Your task to perform on an android device: open app "eBay: The shopping marketplace" Image 0: 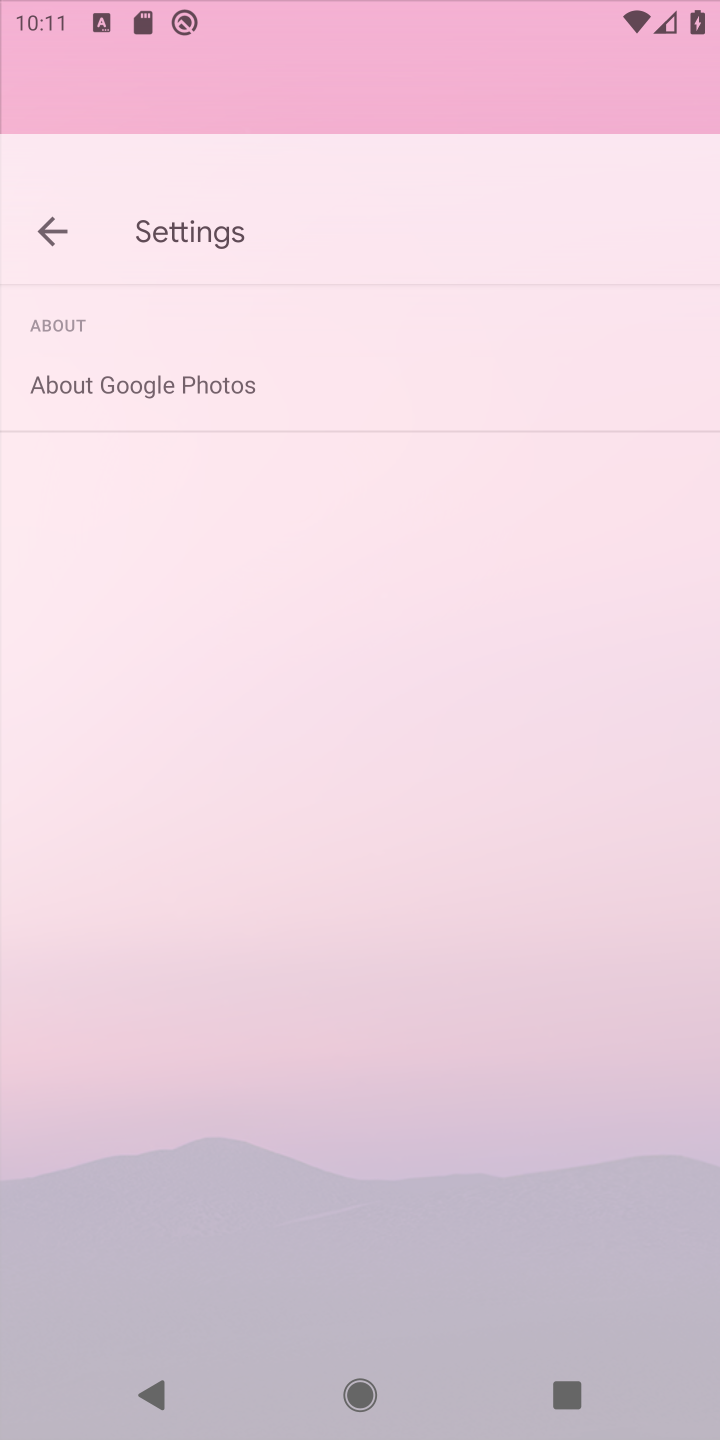
Step 0: click (46, 98)
Your task to perform on an android device: open app "eBay: The shopping marketplace" Image 1: 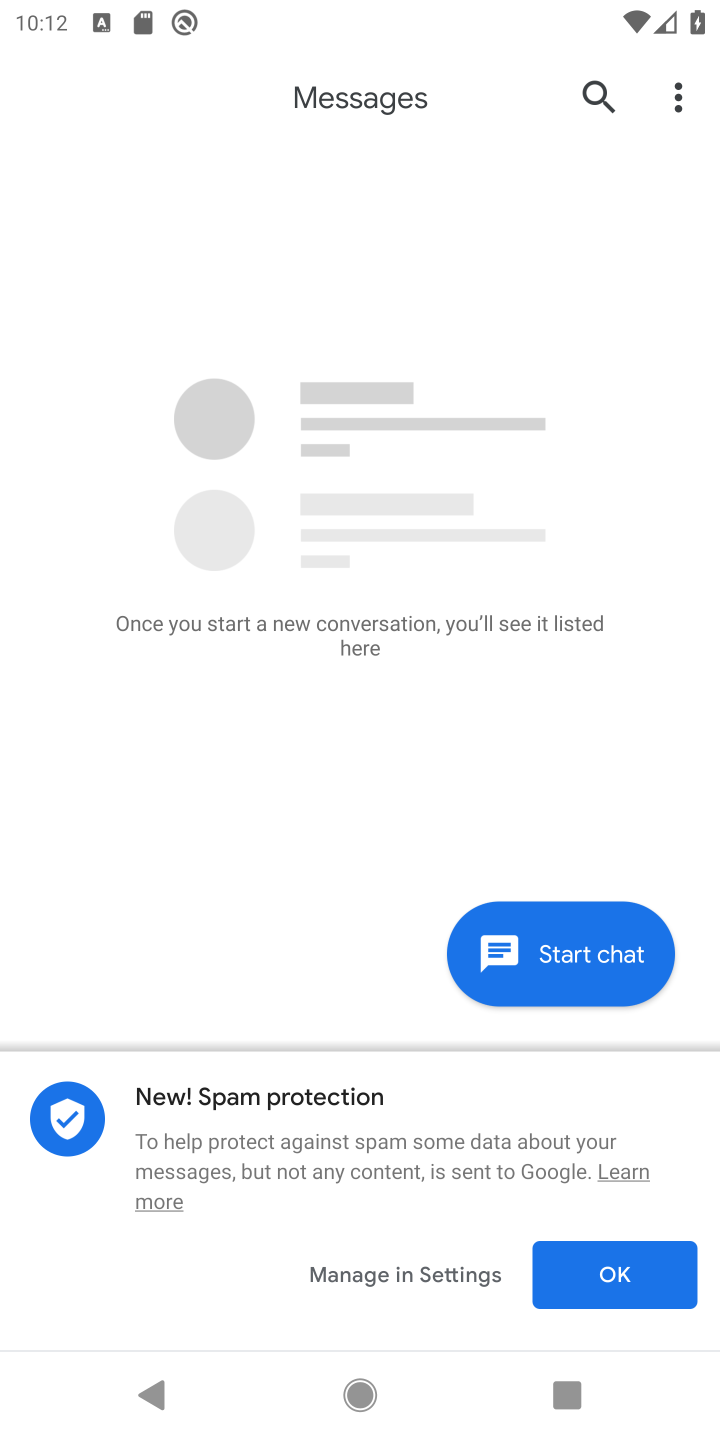
Step 1: press back button
Your task to perform on an android device: open app "eBay: The shopping marketplace" Image 2: 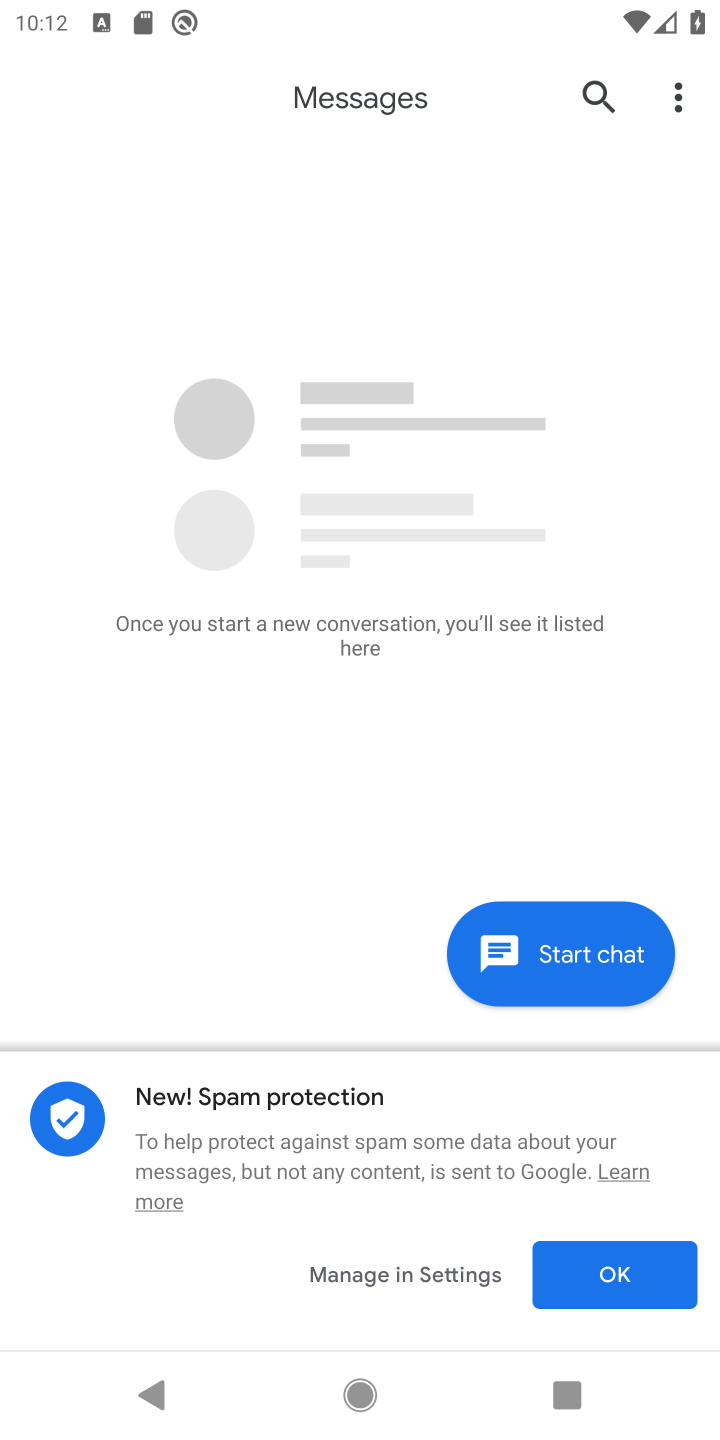
Step 2: press back button
Your task to perform on an android device: open app "eBay: The shopping marketplace" Image 3: 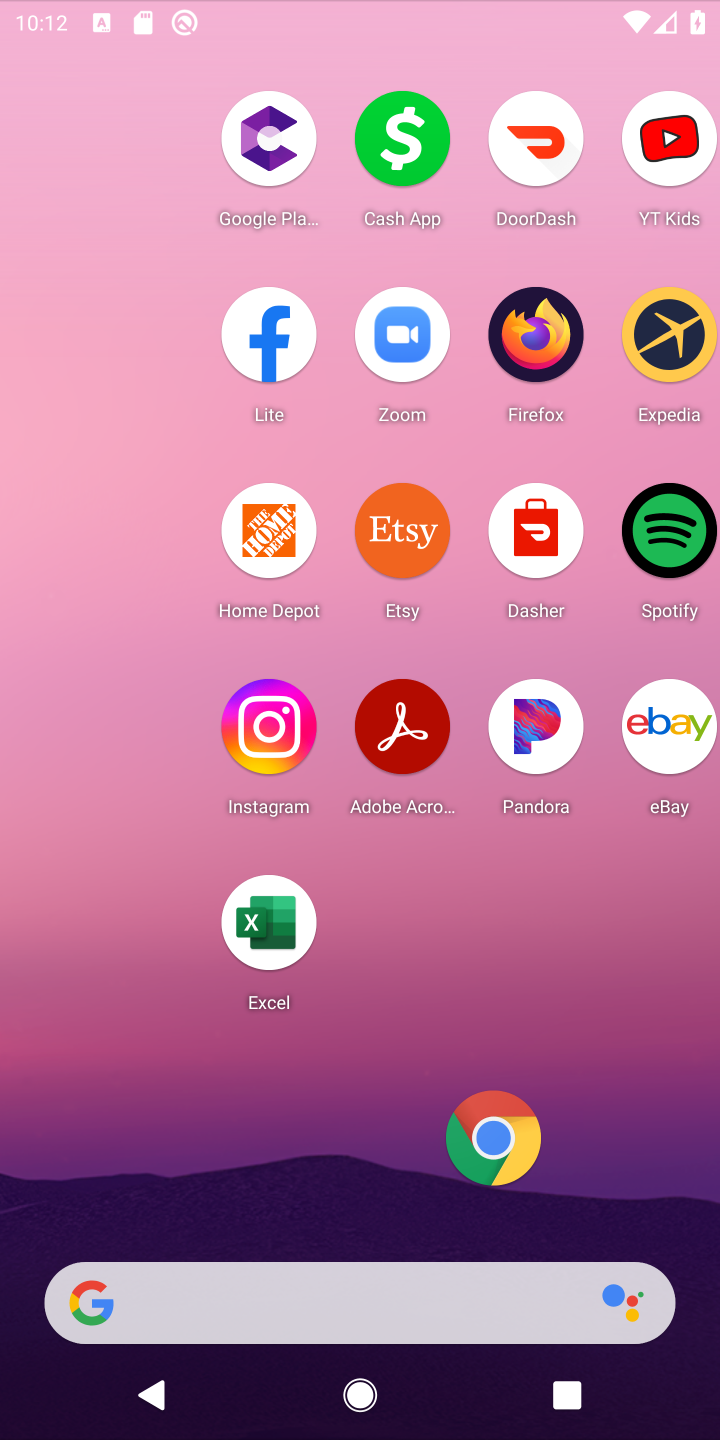
Step 3: press home button
Your task to perform on an android device: open app "eBay: The shopping marketplace" Image 4: 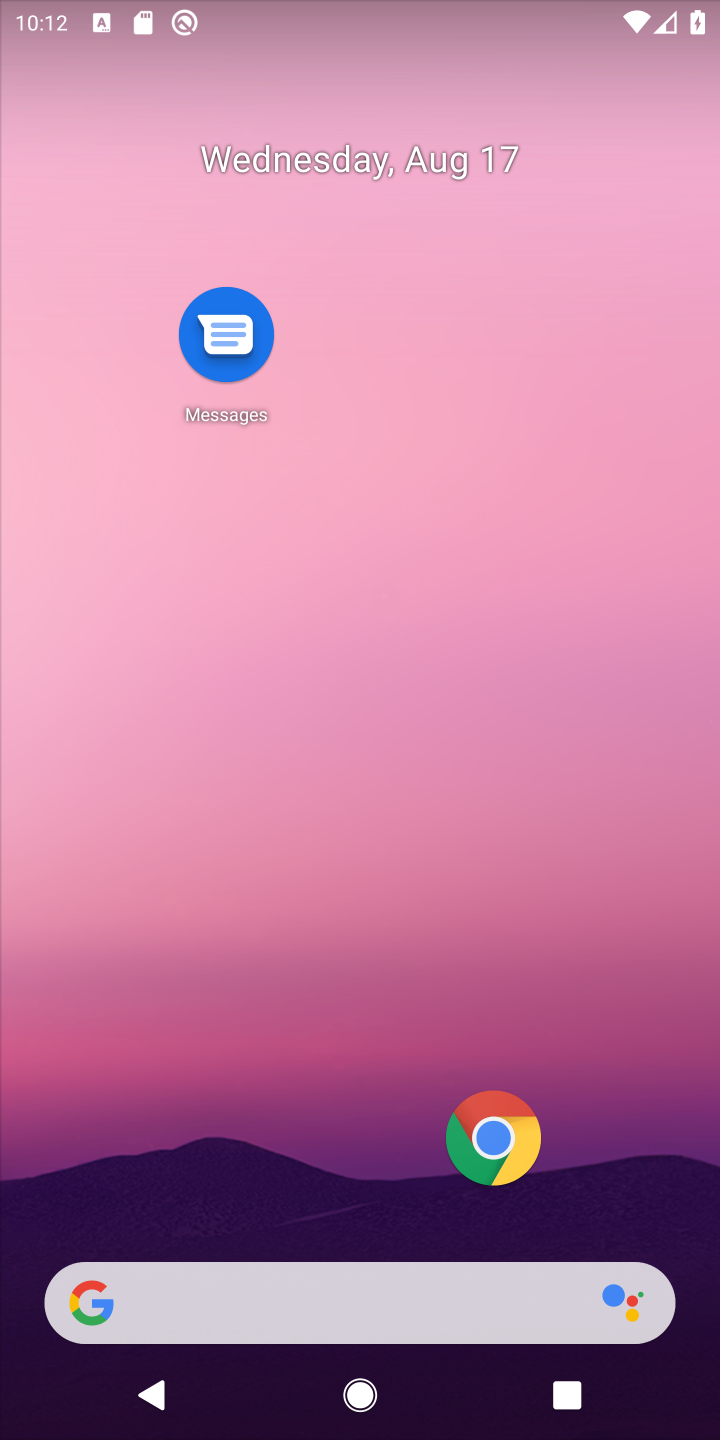
Step 4: drag from (322, 1303) to (274, 143)
Your task to perform on an android device: open app "eBay: The shopping marketplace" Image 5: 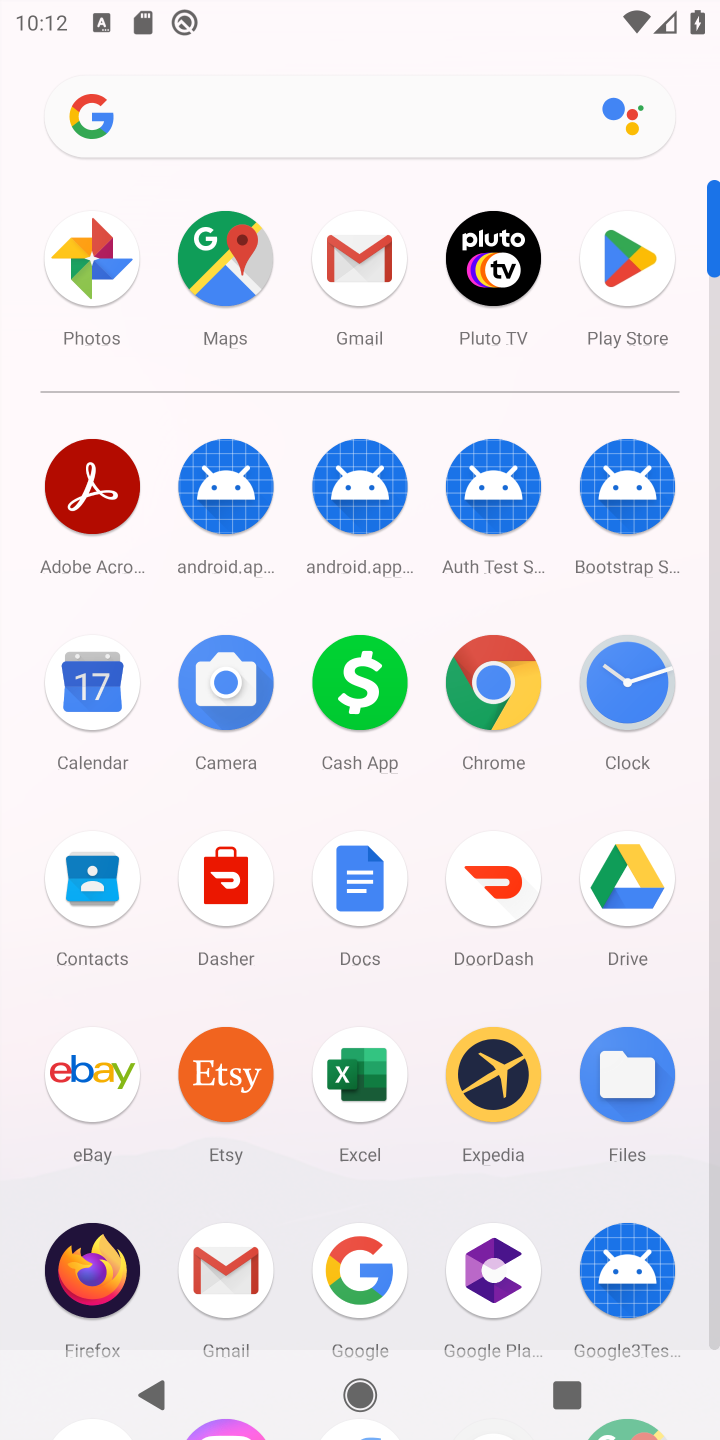
Step 5: click (629, 269)
Your task to perform on an android device: open app "eBay: The shopping marketplace" Image 6: 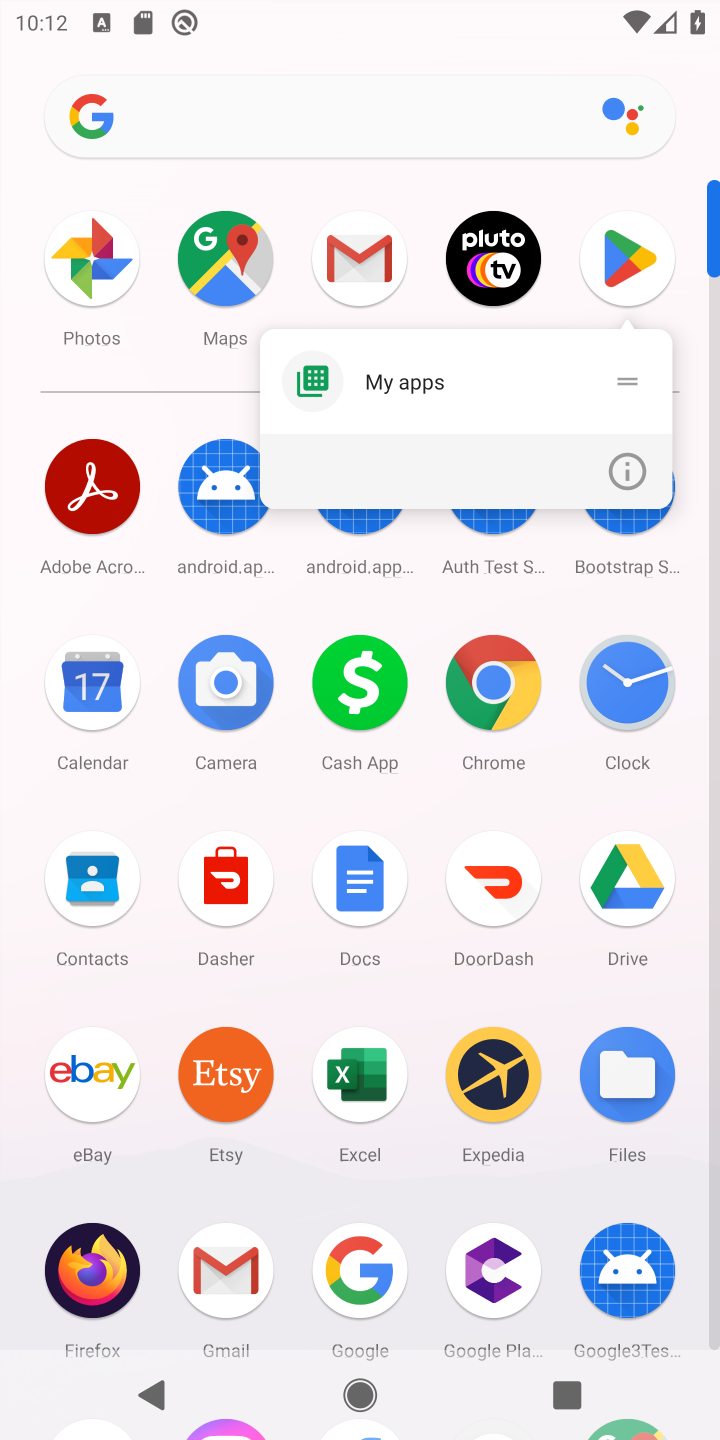
Step 6: click (622, 290)
Your task to perform on an android device: open app "eBay: The shopping marketplace" Image 7: 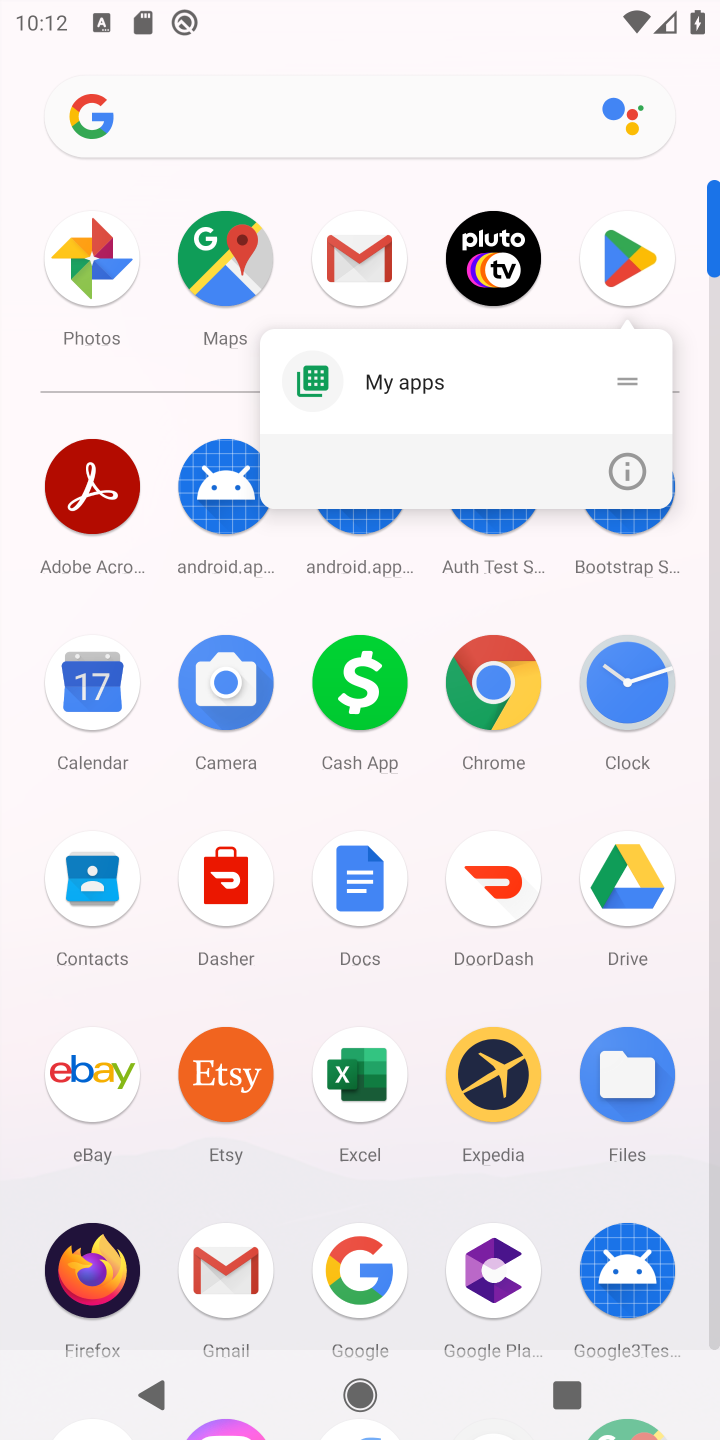
Step 7: click (622, 290)
Your task to perform on an android device: open app "eBay: The shopping marketplace" Image 8: 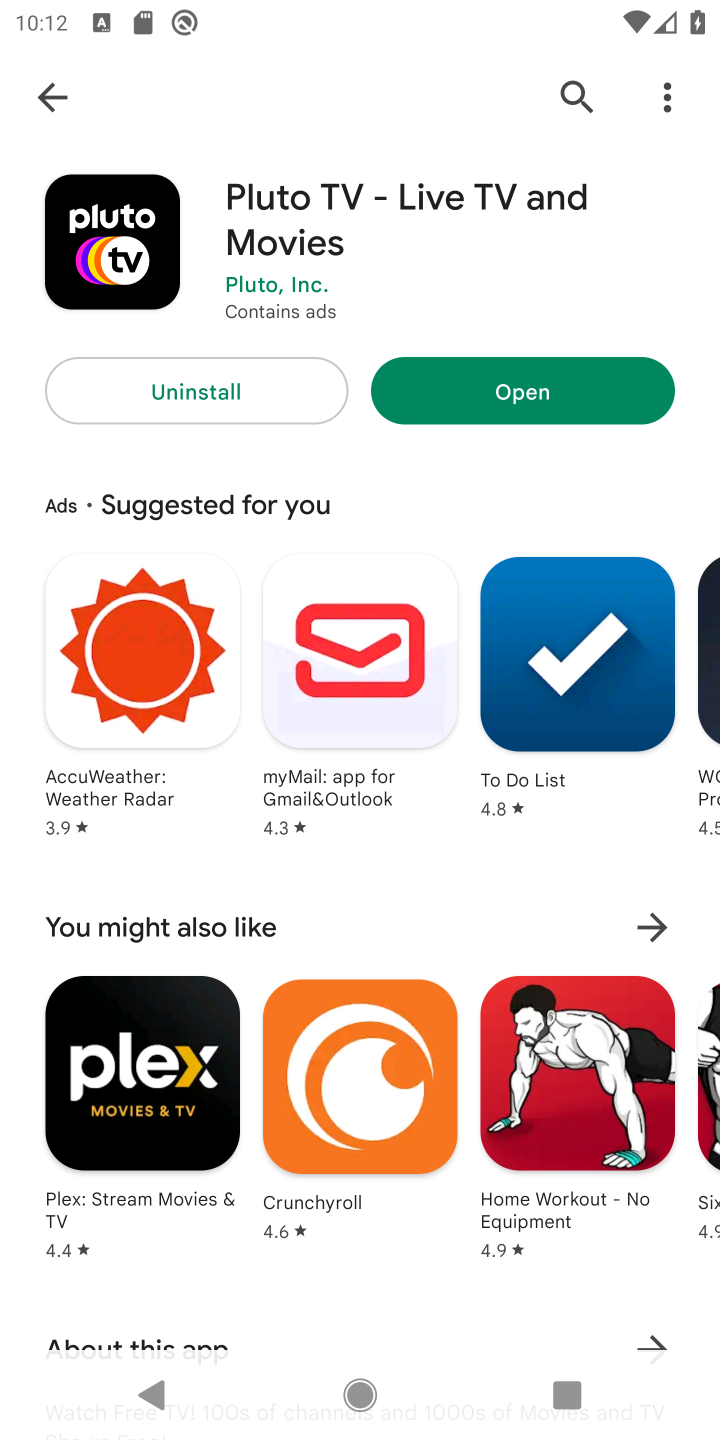
Step 8: click (64, 105)
Your task to perform on an android device: open app "eBay: The shopping marketplace" Image 9: 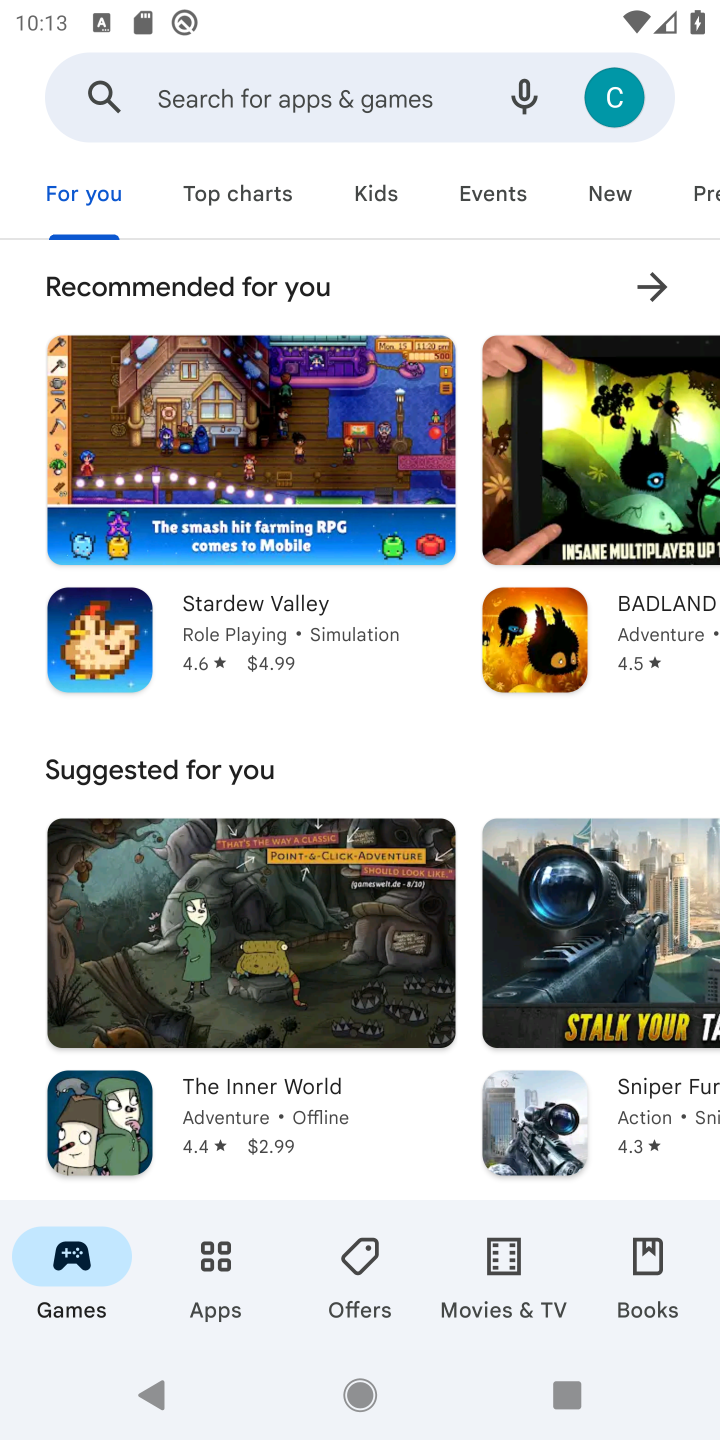
Step 9: click (257, 82)
Your task to perform on an android device: open app "eBay: The shopping marketplace" Image 10: 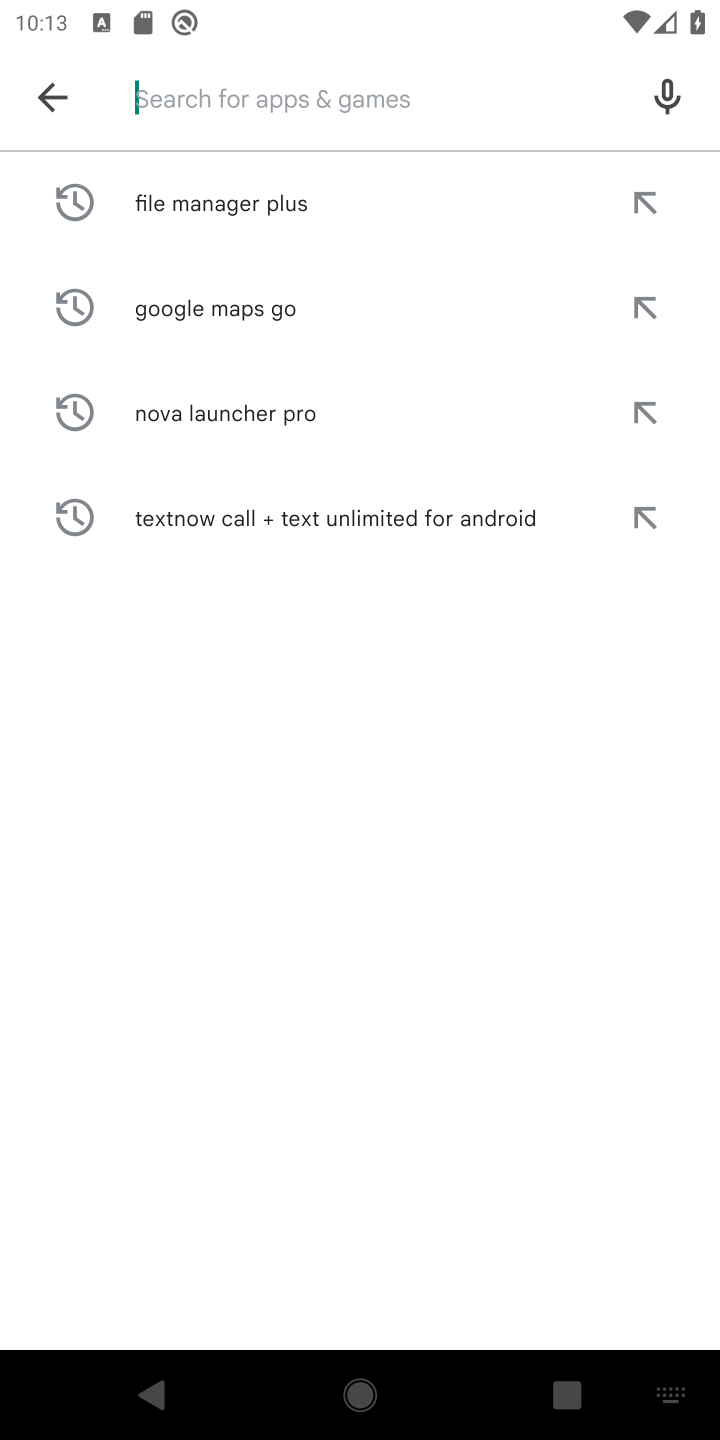
Step 10: type "eBay: The shopping marketplace "
Your task to perform on an android device: open app "eBay: The shopping marketplace" Image 11: 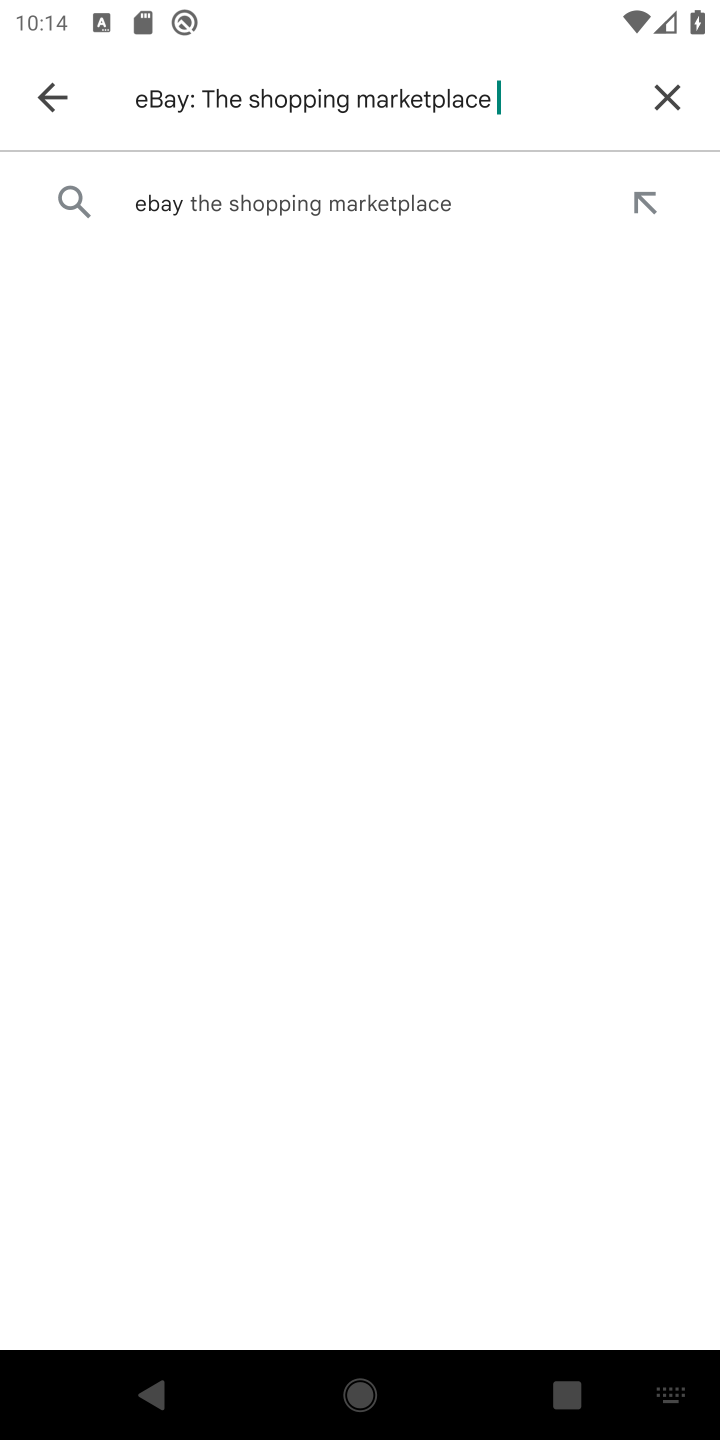
Step 11: click (362, 183)
Your task to perform on an android device: open app "eBay: The shopping marketplace" Image 12: 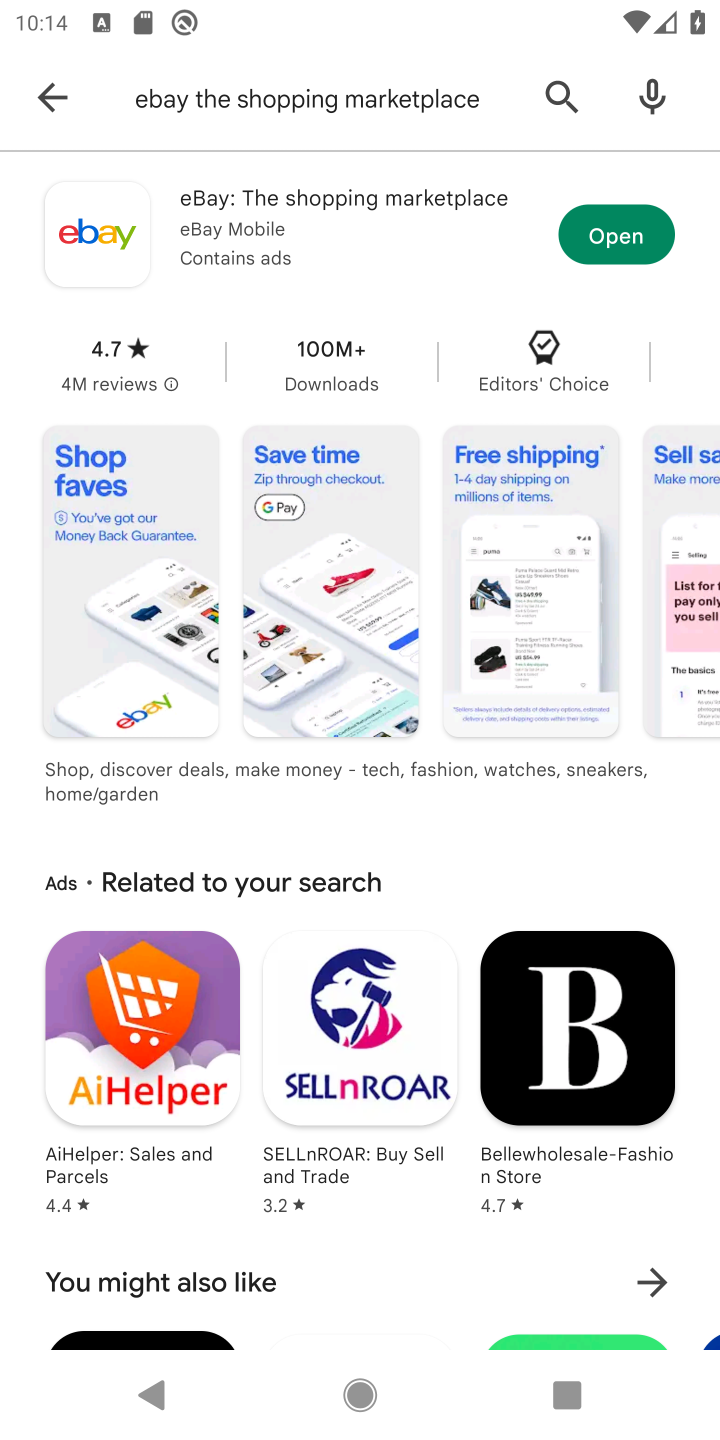
Step 12: click (643, 221)
Your task to perform on an android device: open app "eBay: The shopping marketplace" Image 13: 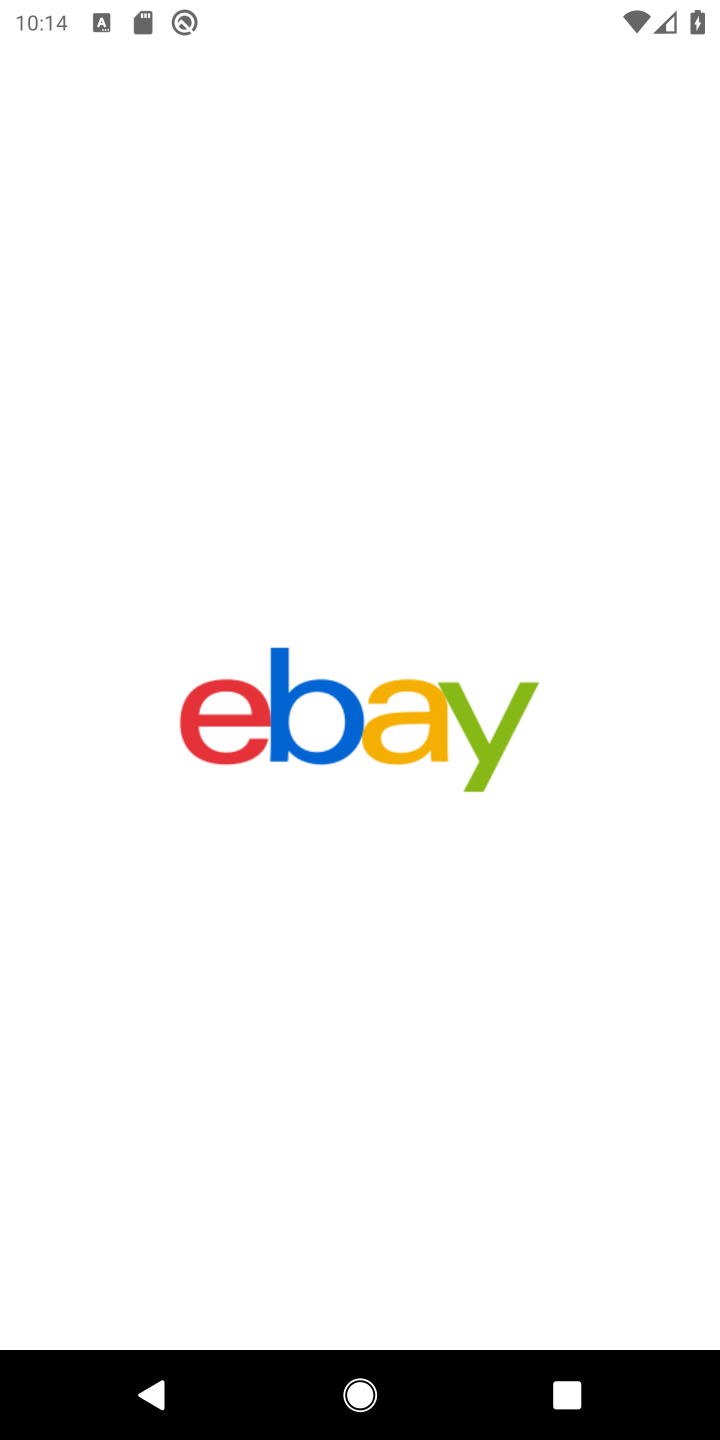
Step 13: task complete